Your task to perform on an android device: turn on location history Image 0: 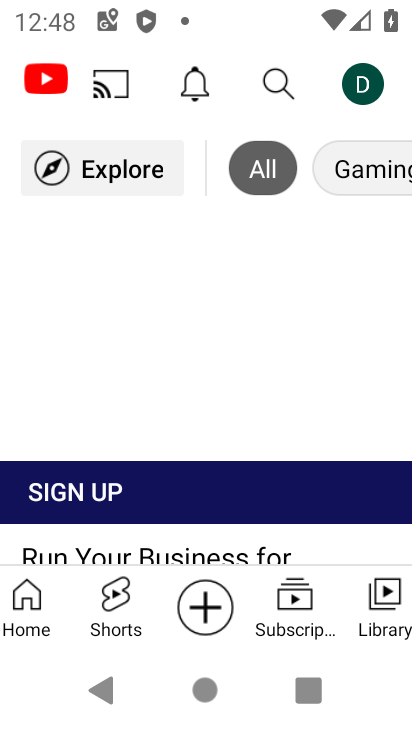
Step 0: click (320, 47)
Your task to perform on an android device: turn on location history Image 1: 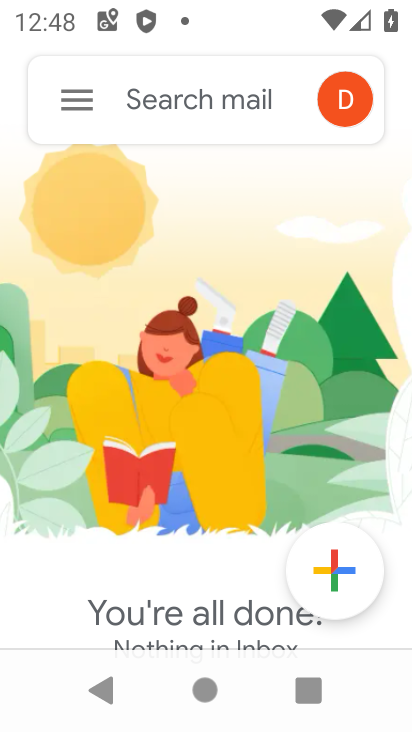
Step 1: press home button
Your task to perform on an android device: turn on location history Image 2: 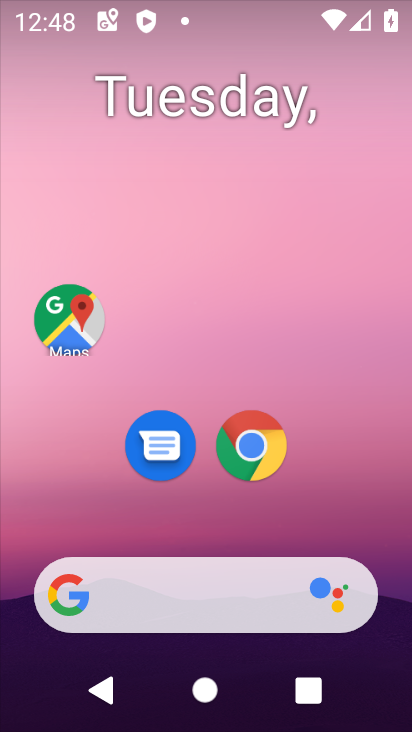
Step 2: drag from (370, 518) to (385, 15)
Your task to perform on an android device: turn on location history Image 3: 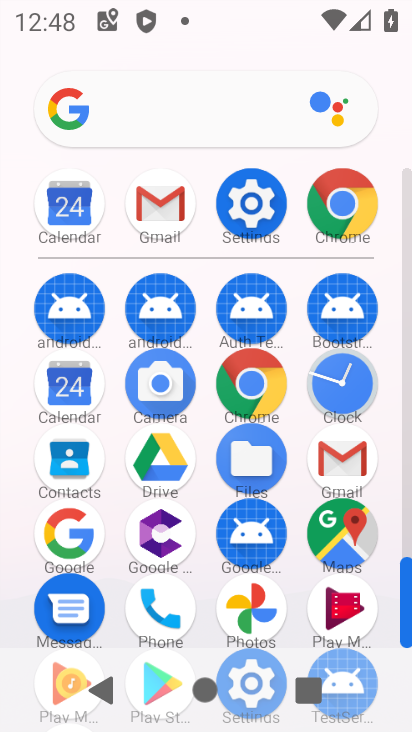
Step 3: click (228, 208)
Your task to perform on an android device: turn on location history Image 4: 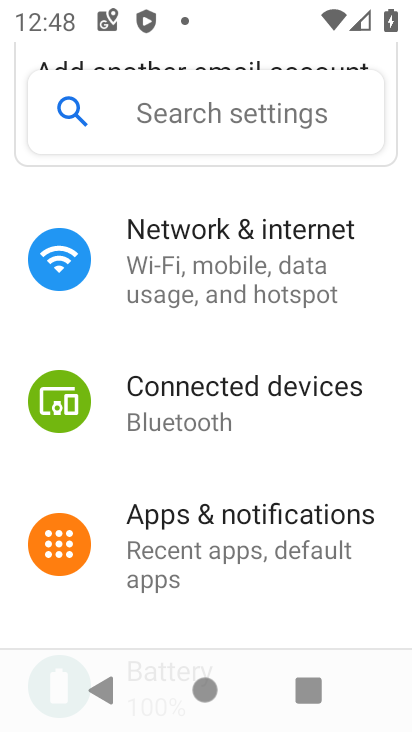
Step 4: drag from (232, 582) to (183, 234)
Your task to perform on an android device: turn on location history Image 5: 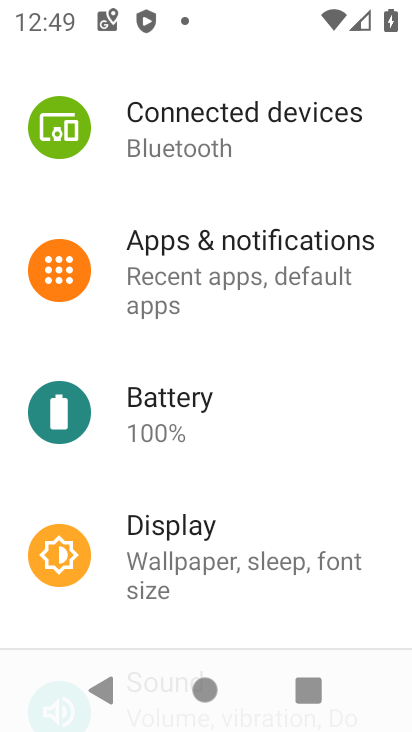
Step 5: drag from (184, 571) to (214, 200)
Your task to perform on an android device: turn on location history Image 6: 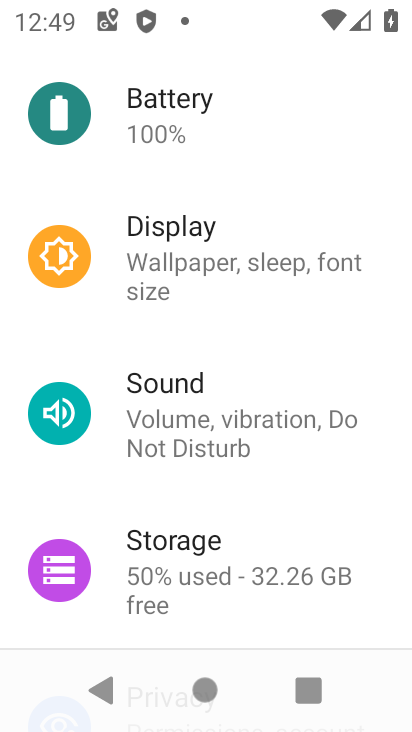
Step 6: drag from (189, 553) to (185, 212)
Your task to perform on an android device: turn on location history Image 7: 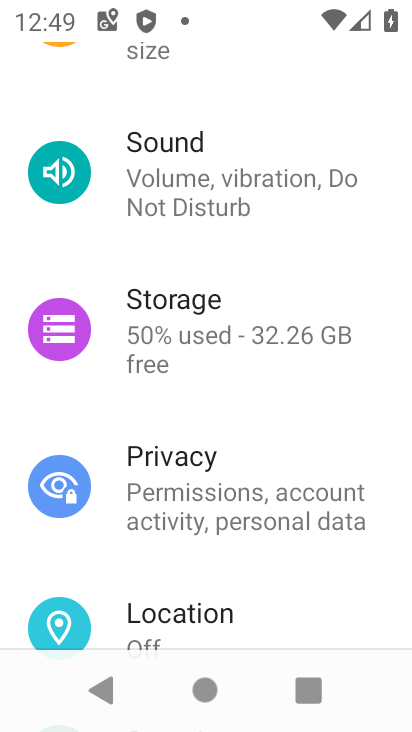
Step 7: drag from (228, 542) to (252, 208)
Your task to perform on an android device: turn on location history Image 8: 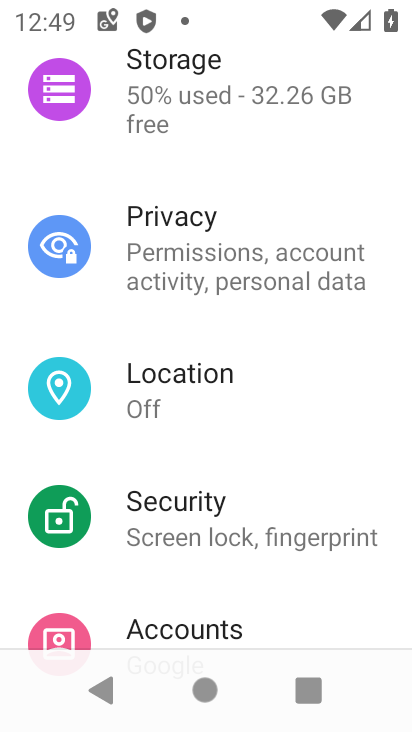
Step 8: click (165, 372)
Your task to perform on an android device: turn on location history Image 9: 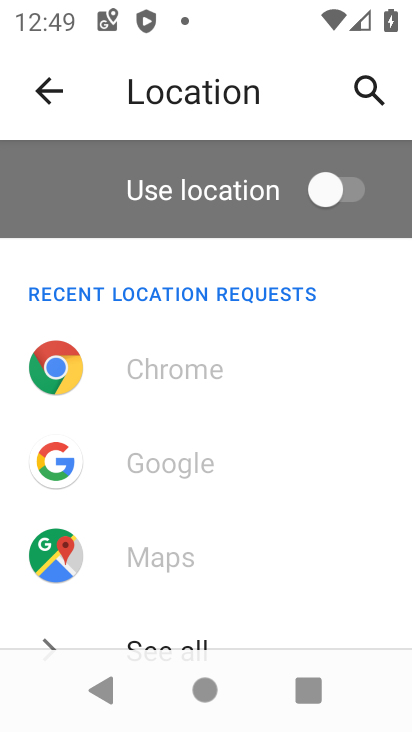
Step 9: drag from (233, 578) to (221, 228)
Your task to perform on an android device: turn on location history Image 10: 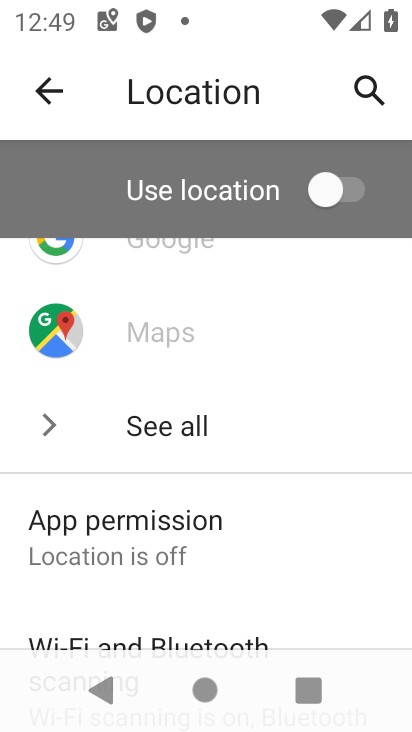
Step 10: drag from (197, 547) to (137, 209)
Your task to perform on an android device: turn on location history Image 11: 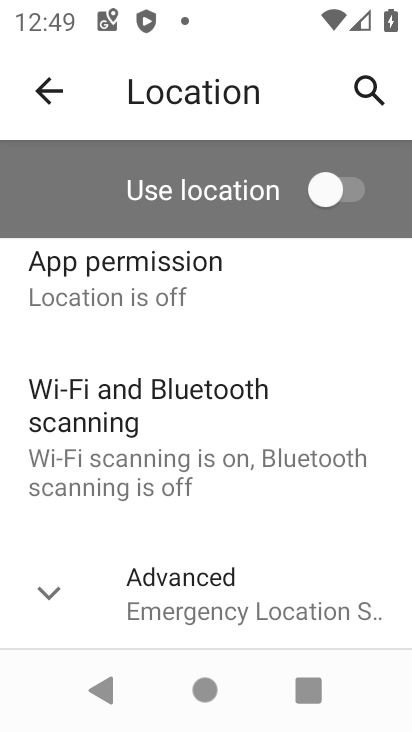
Step 11: click (216, 559)
Your task to perform on an android device: turn on location history Image 12: 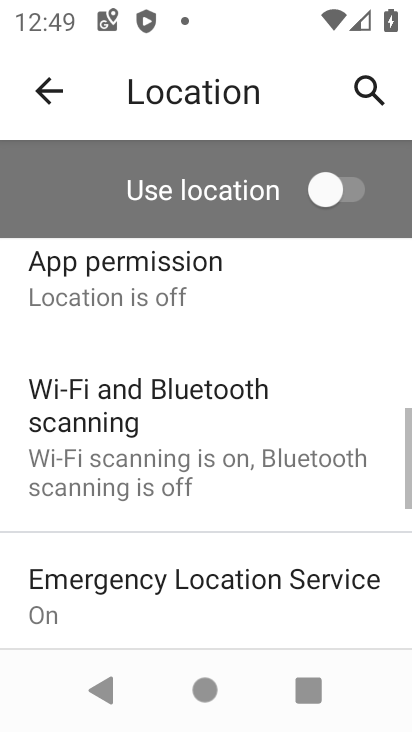
Step 12: drag from (234, 560) to (181, 225)
Your task to perform on an android device: turn on location history Image 13: 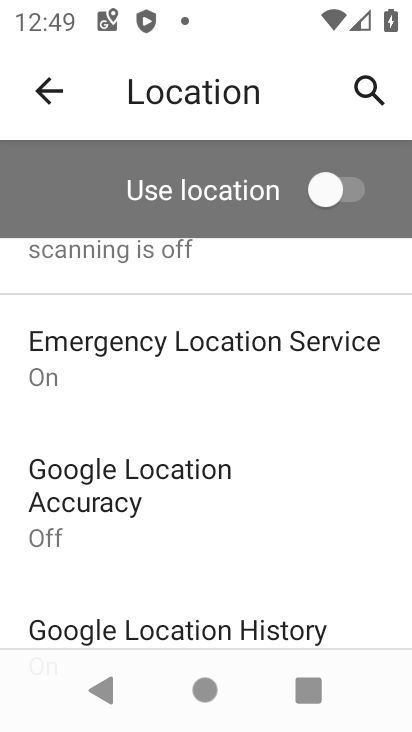
Step 13: drag from (140, 543) to (134, 262)
Your task to perform on an android device: turn on location history Image 14: 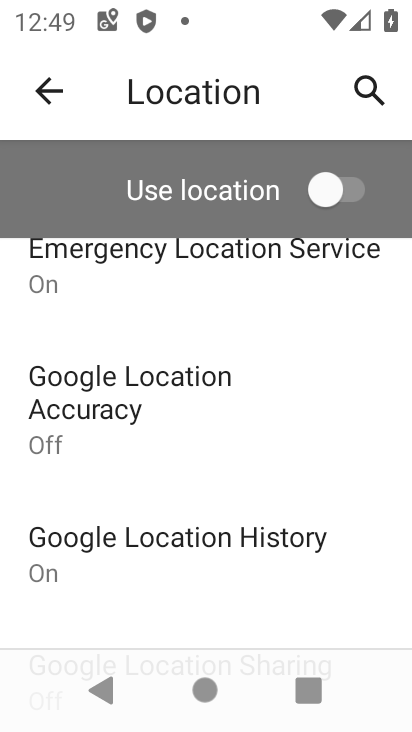
Step 14: click (159, 560)
Your task to perform on an android device: turn on location history Image 15: 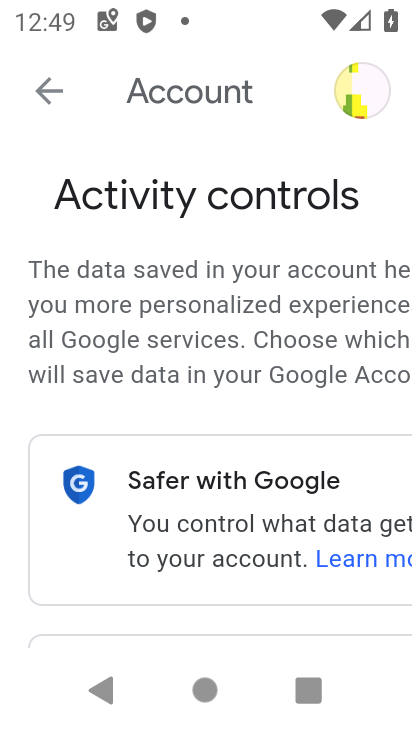
Step 15: task complete